Your task to perform on an android device: install app "Skype" Image 0: 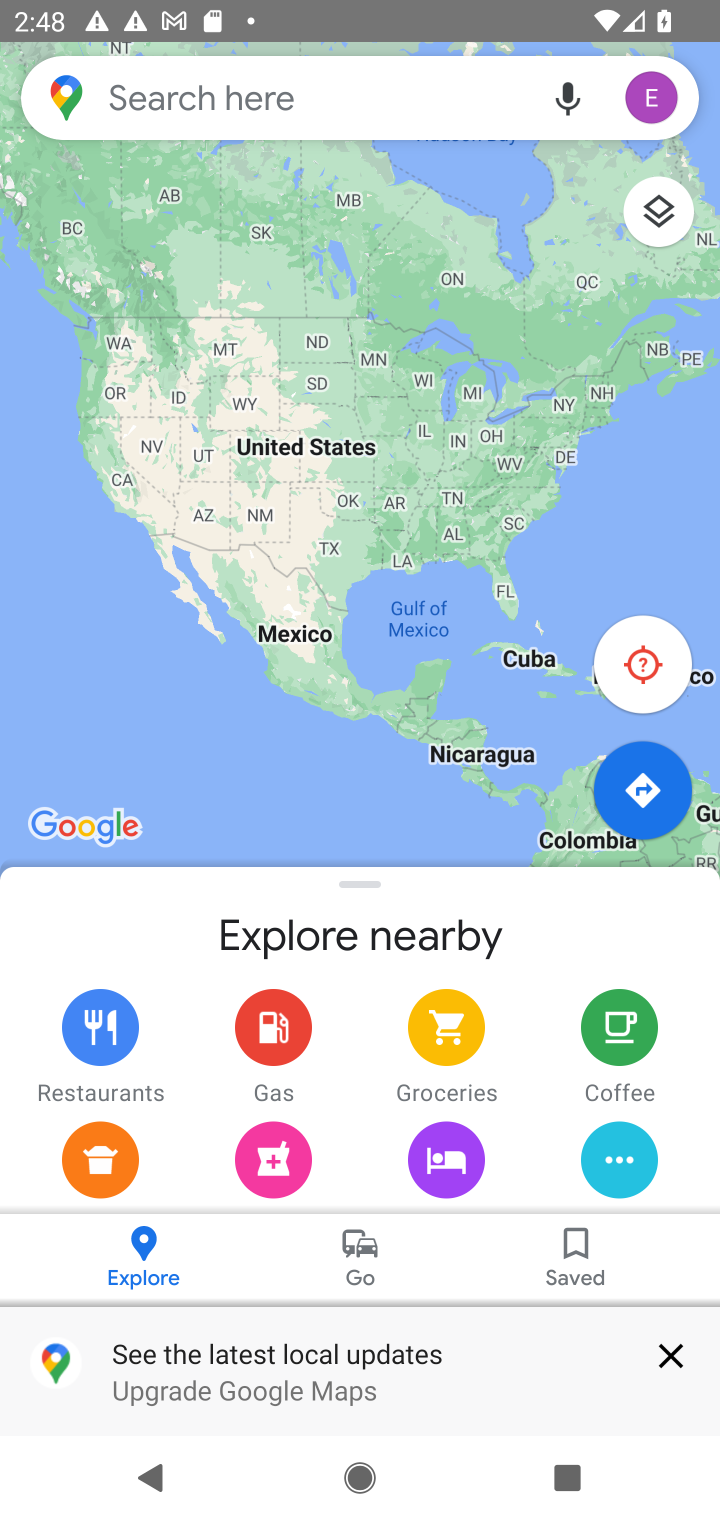
Step 0: press home button
Your task to perform on an android device: install app "Skype" Image 1: 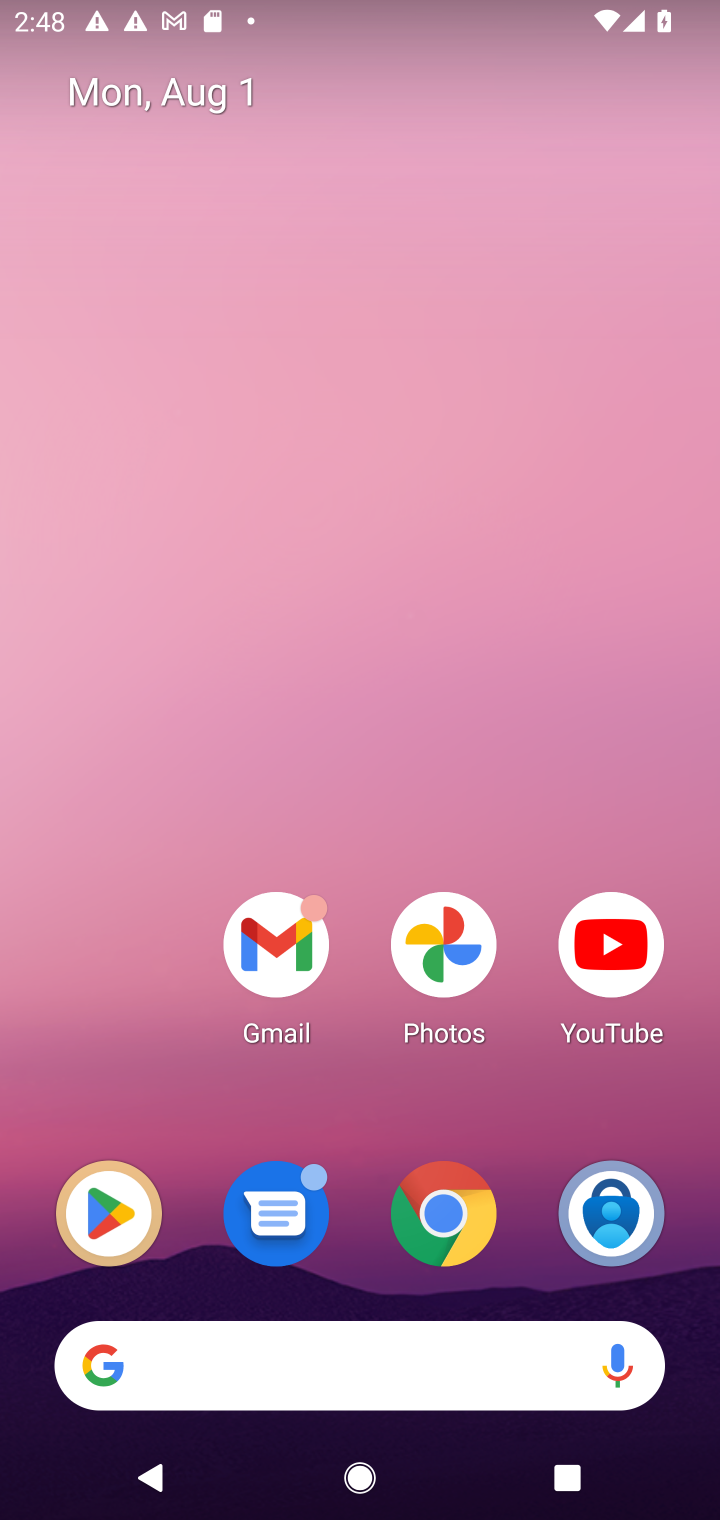
Step 1: drag from (555, 951) to (564, 6)
Your task to perform on an android device: install app "Skype" Image 2: 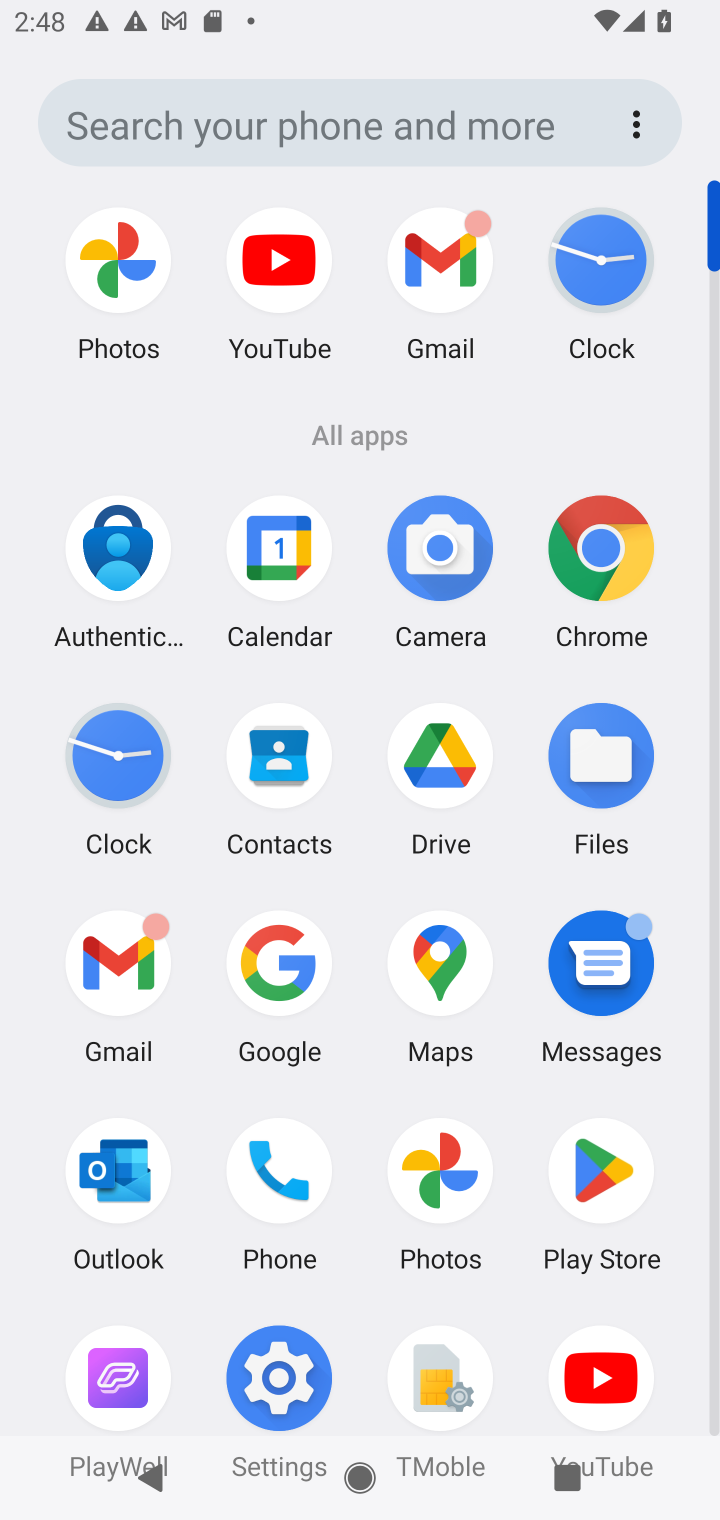
Step 2: click (616, 1154)
Your task to perform on an android device: install app "Skype" Image 3: 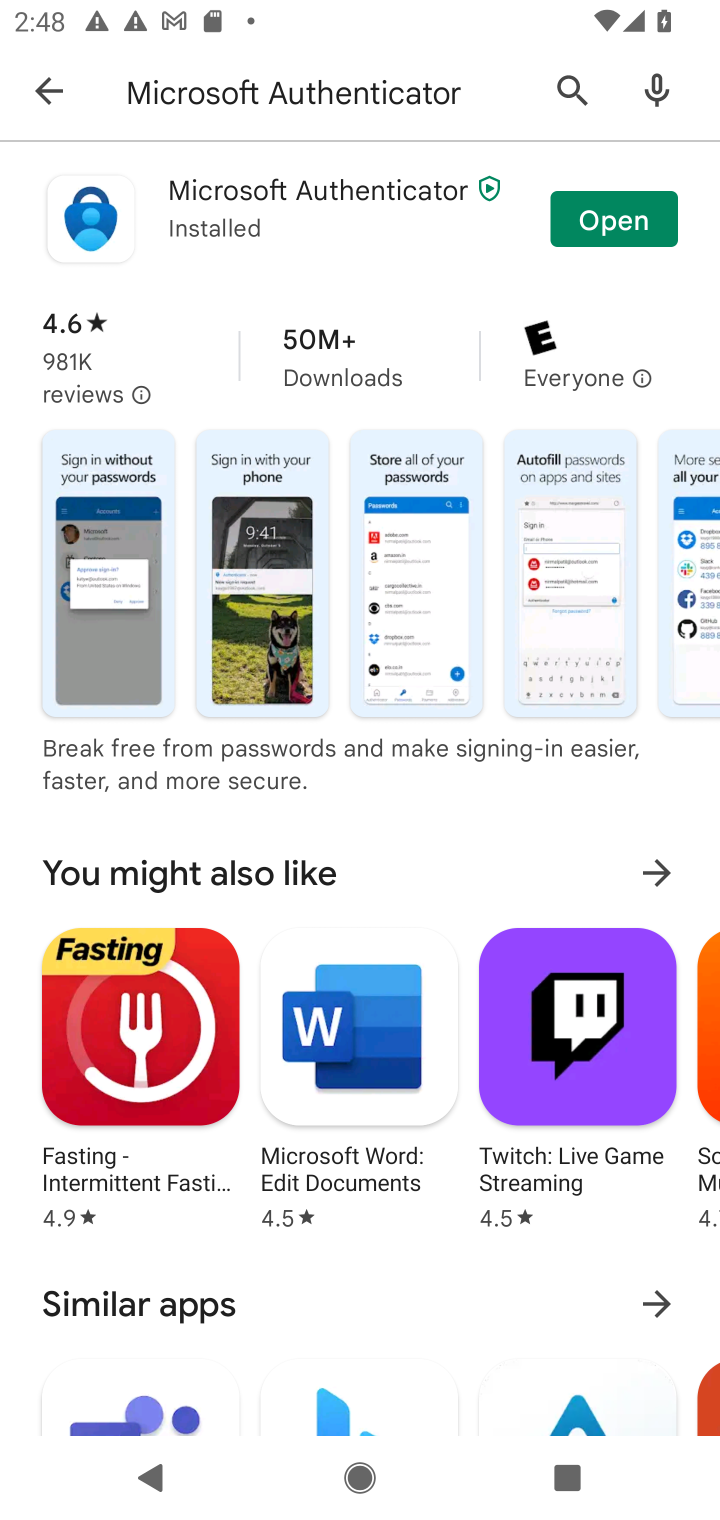
Step 3: click (364, 90)
Your task to perform on an android device: install app "Skype" Image 4: 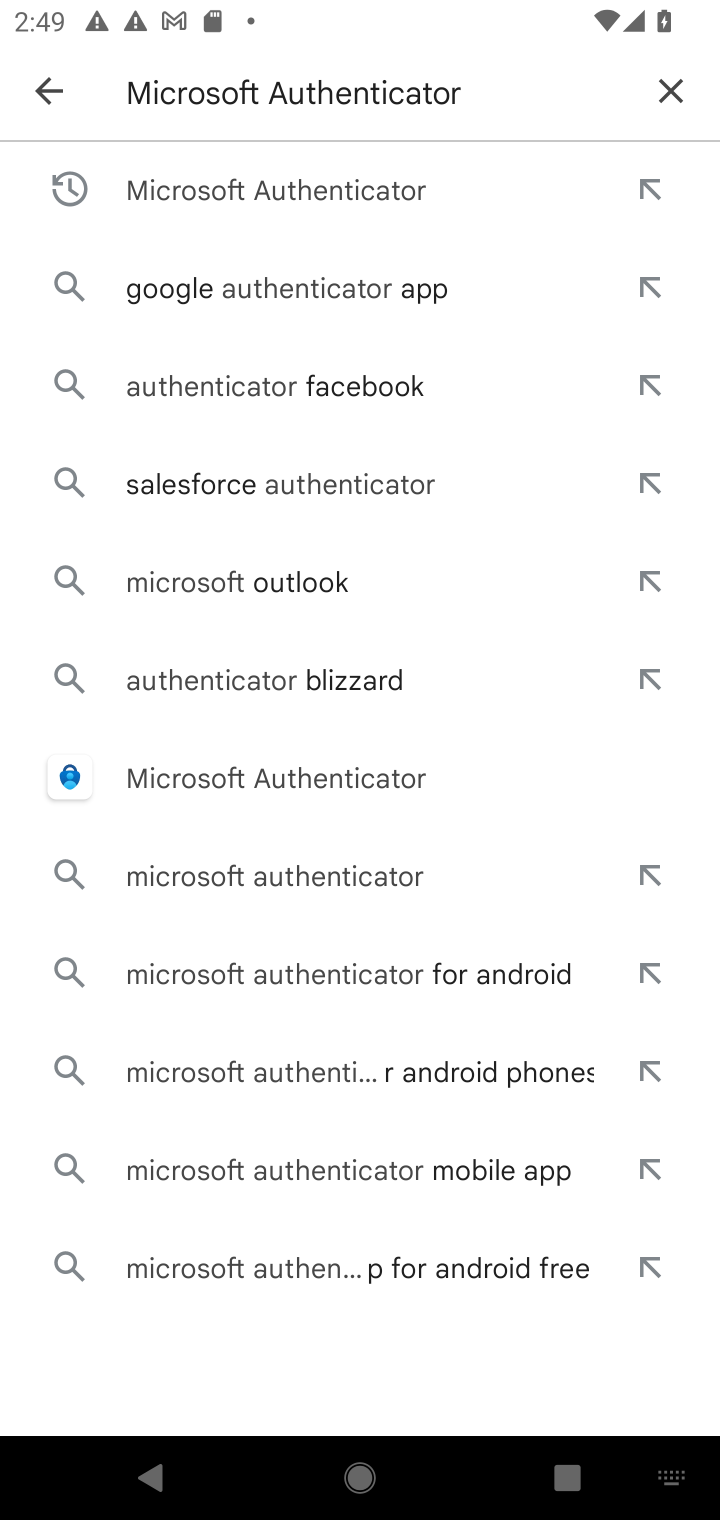
Step 4: click (678, 82)
Your task to perform on an android device: install app "Skype" Image 5: 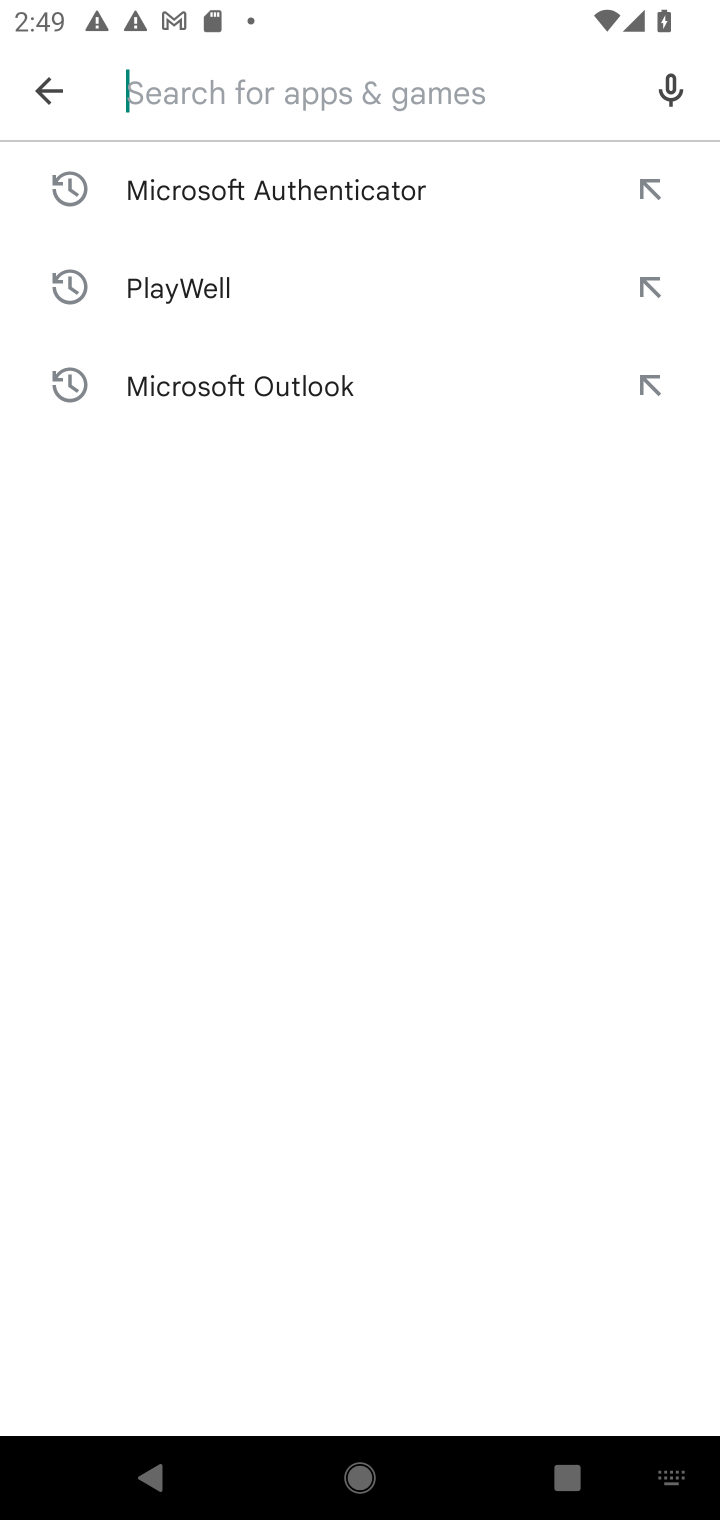
Step 5: type "Skype"
Your task to perform on an android device: install app "Skype" Image 6: 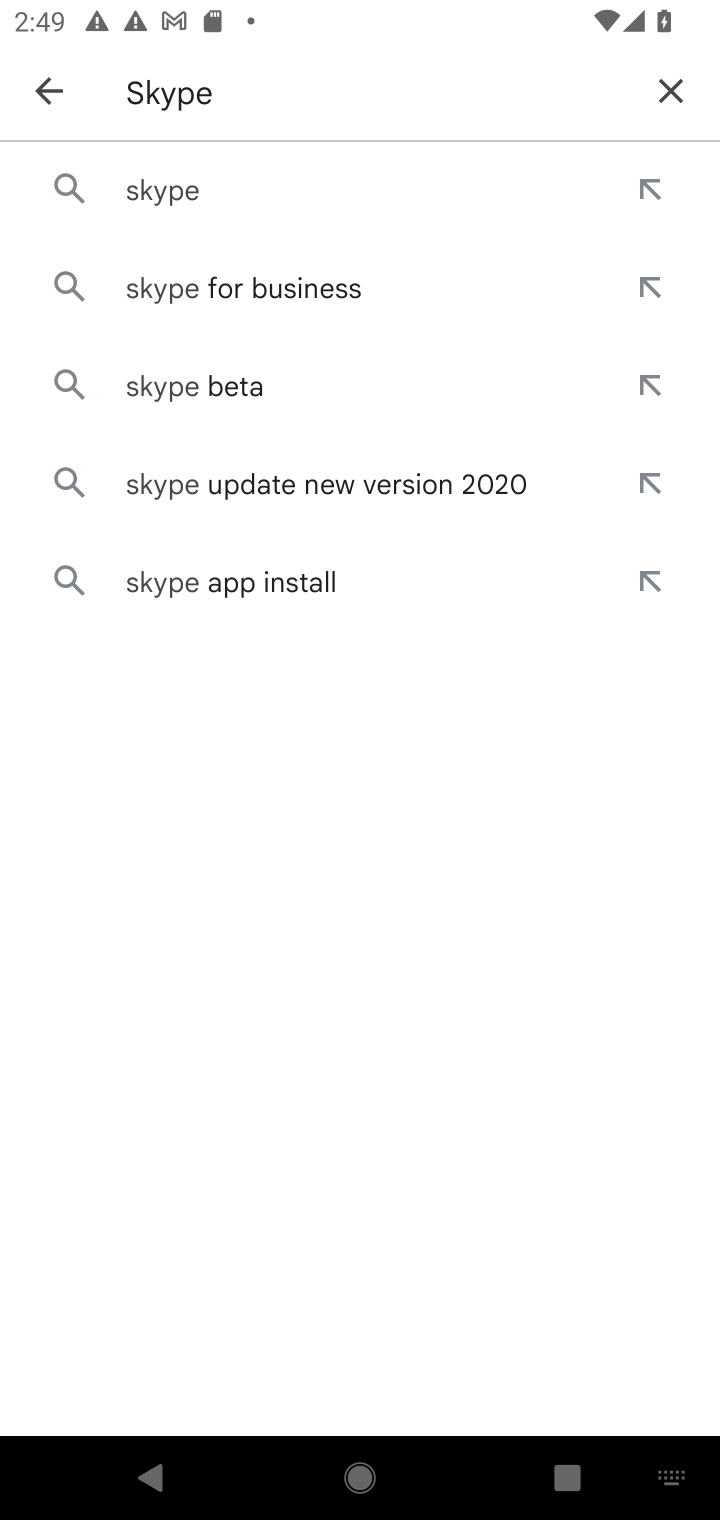
Step 6: press enter
Your task to perform on an android device: install app "Skype" Image 7: 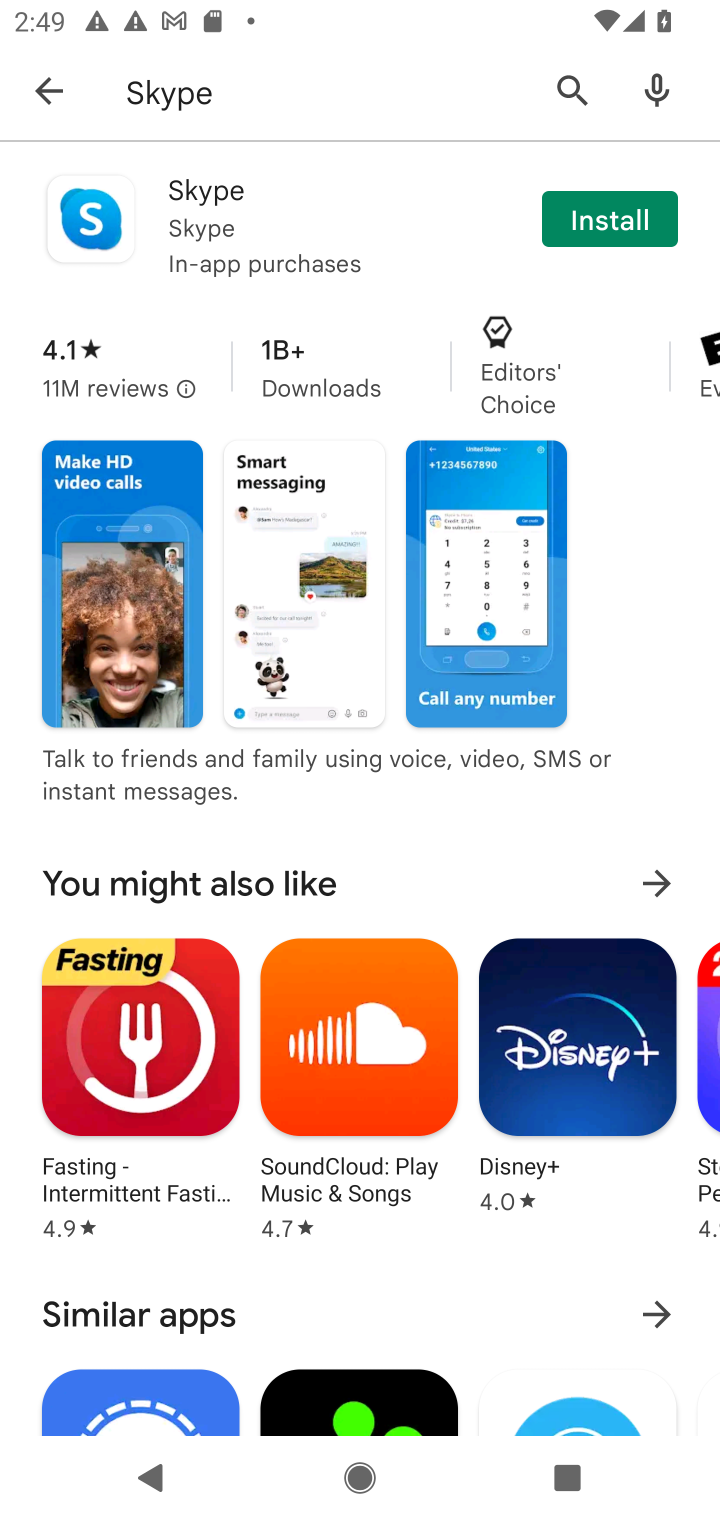
Step 7: click (628, 201)
Your task to perform on an android device: install app "Skype" Image 8: 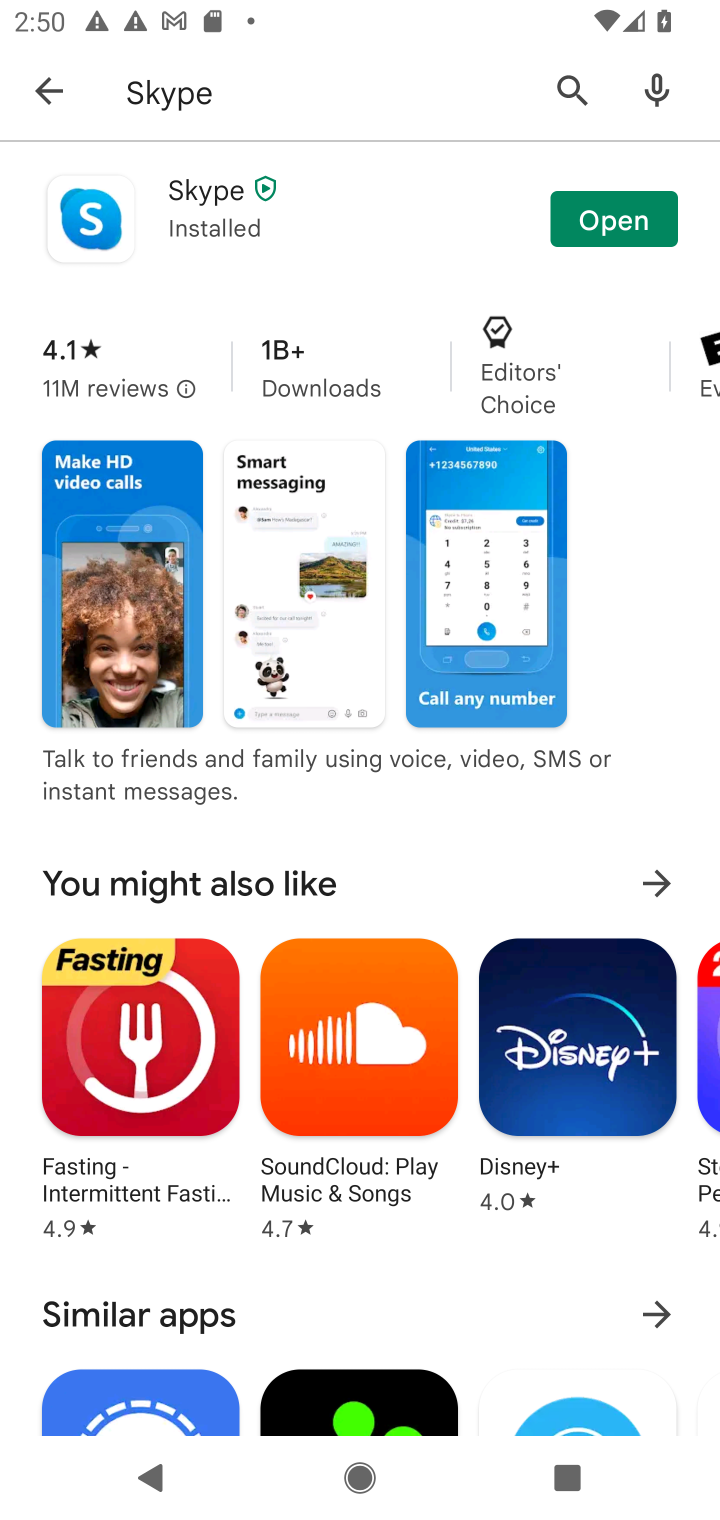
Step 8: task complete